Your task to perform on an android device: make emails show in primary in the gmail app Image 0: 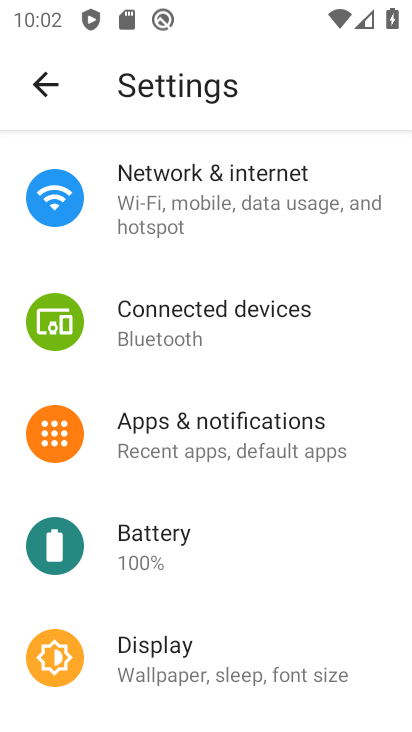
Step 0: press home button
Your task to perform on an android device: make emails show in primary in the gmail app Image 1: 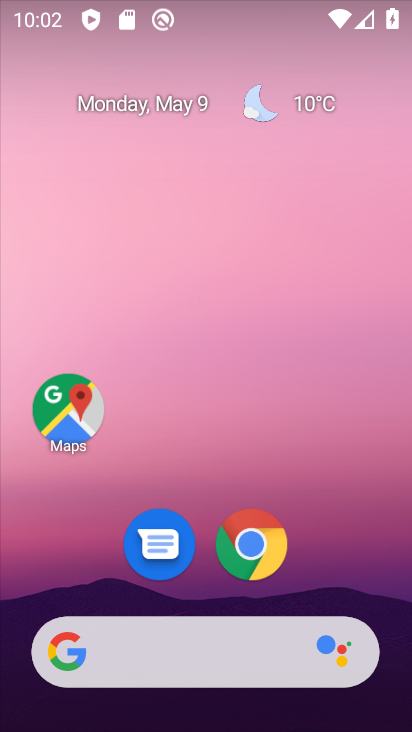
Step 1: drag from (397, 669) to (337, 205)
Your task to perform on an android device: make emails show in primary in the gmail app Image 2: 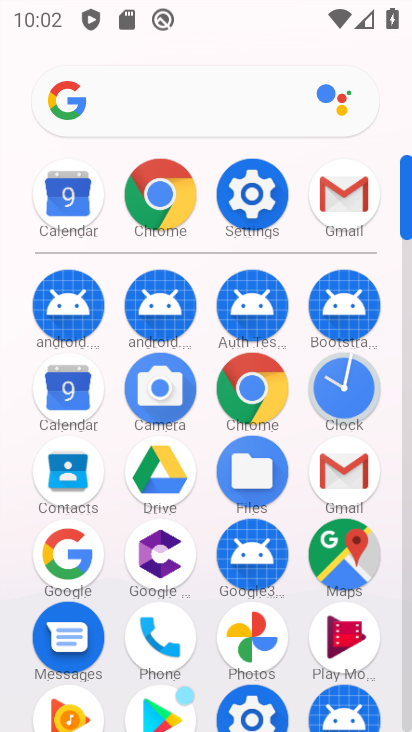
Step 2: click (348, 465)
Your task to perform on an android device: make emails show in primary in the gmail app Image 3: 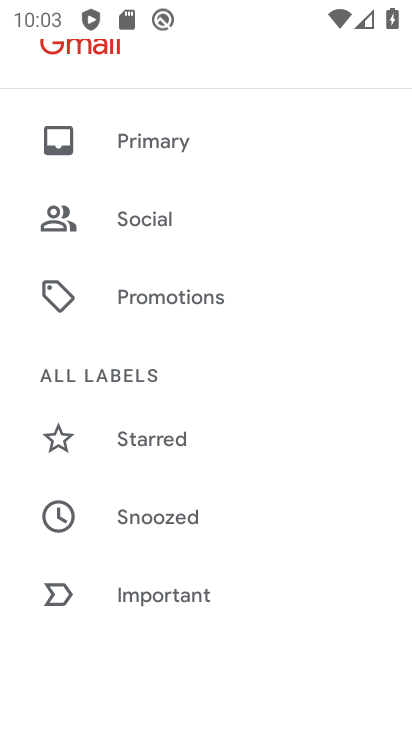
Step 3: drag from (305, 436) to (287, 227)
Your task to perform on an android device: make emails show in primary in the gmail app Image 4: 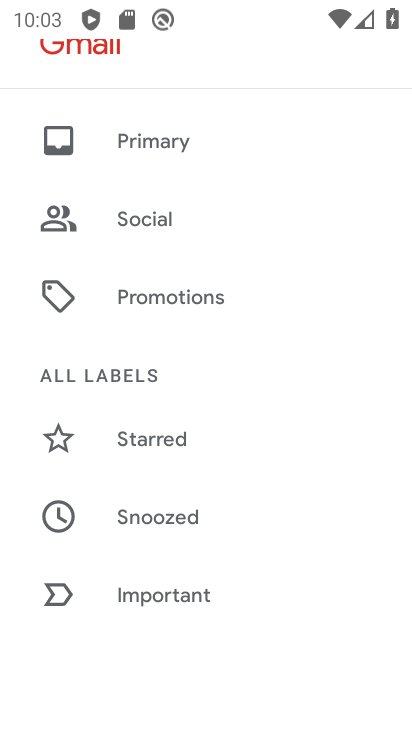
Step 4: drag from (313, 580) to (334, 229)
Your task to perform on an android device: make emails show in primary in the gmail app Image 5: 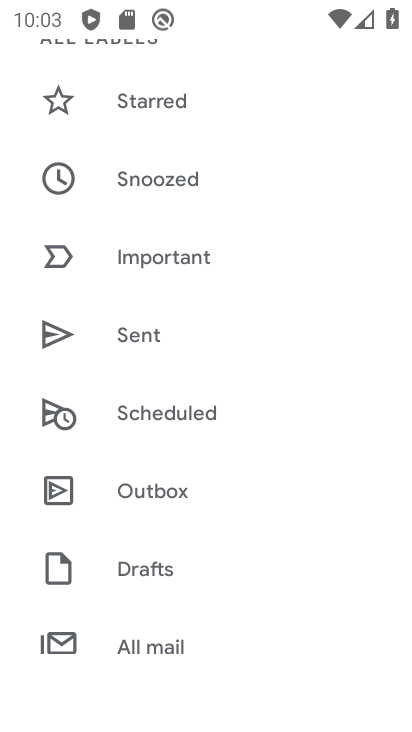
Step 5: drag from (341, 614) to (352, 335)
Your task to perform on an android device: make emails show in primary in the gmail app Image 6: 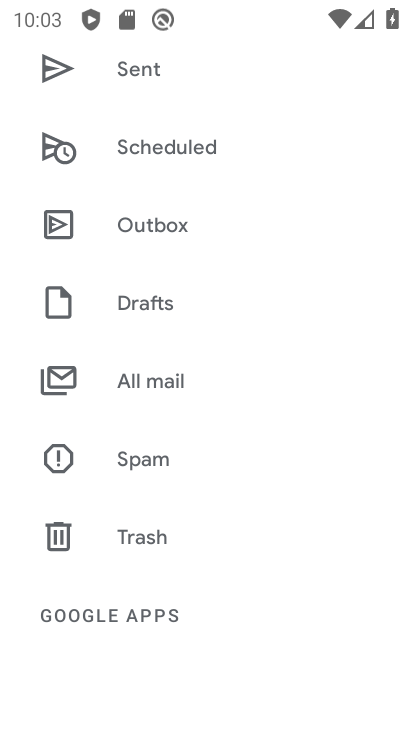
Step 6: drag from (310, 575) to (306, 302)
Your task to perform on an android device: make emails show in primary in the gmail app Image 7: 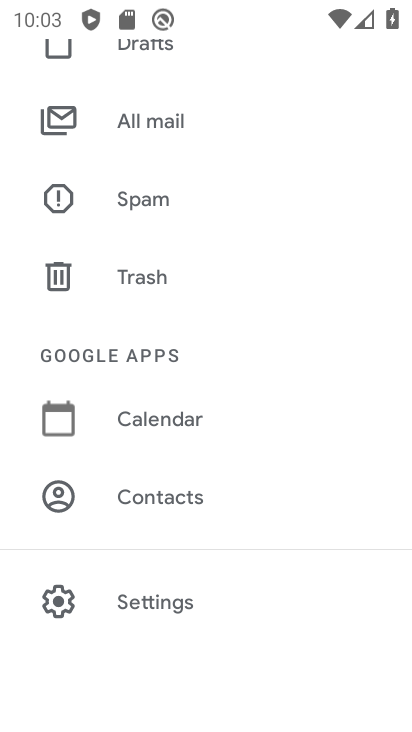
Step 7: click (164, 596)
Your task to perform on an android device: make emails show in primary in the gmail app Image 8: 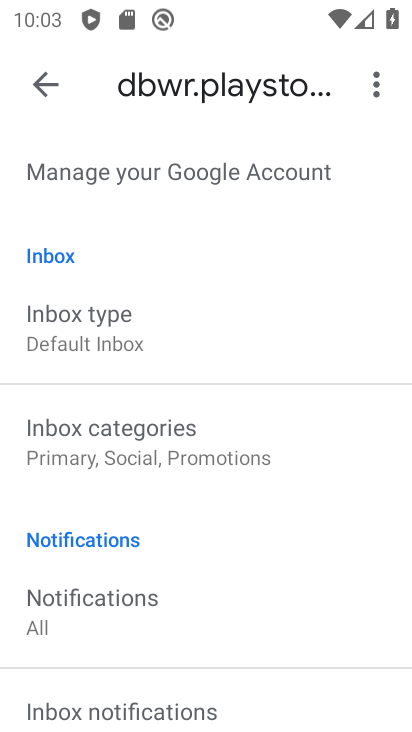
Step 8: click (98, 439)
Your task to perform on an android device: make emails show in primary in the gmail app Image 9: 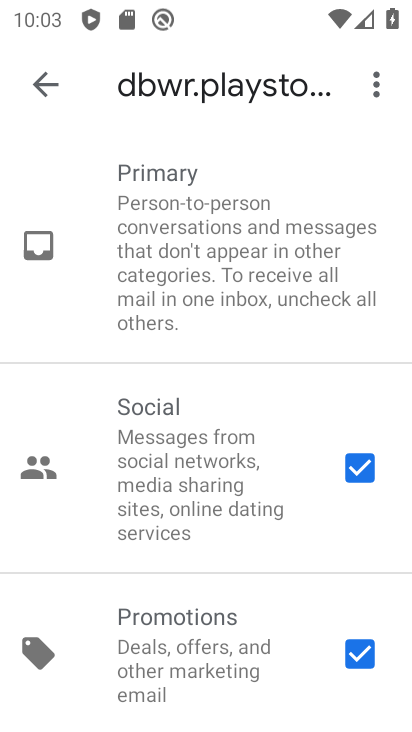
Step 9: click (350, 468)
Your task to perform on an android device: make emails show in primary in the gmail app Image 10: 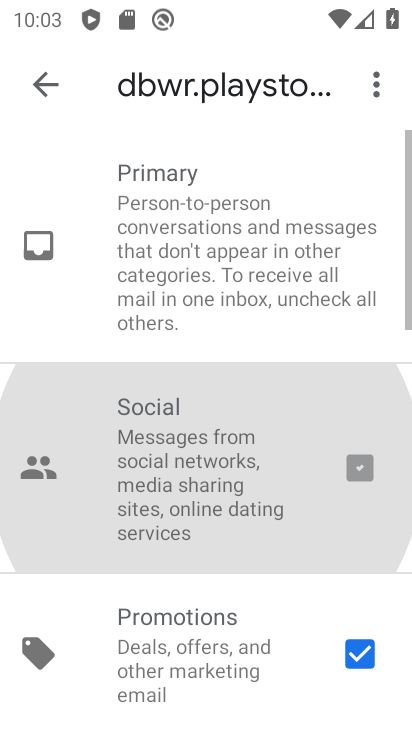
Step 10: click (354, 657)
Your task to perform on an android device: make emails show in primary in the gmail app Image 11: 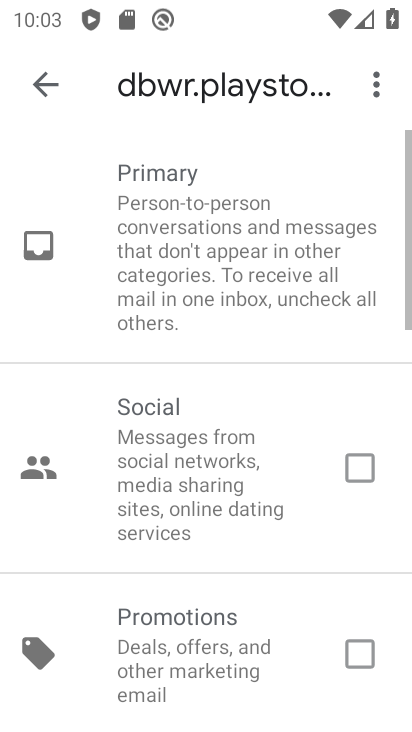
Step 11: drag from (289, 677) to (282, 276)
Your task to perform on an android device: make emails show in primary in the gmail app Image 12: 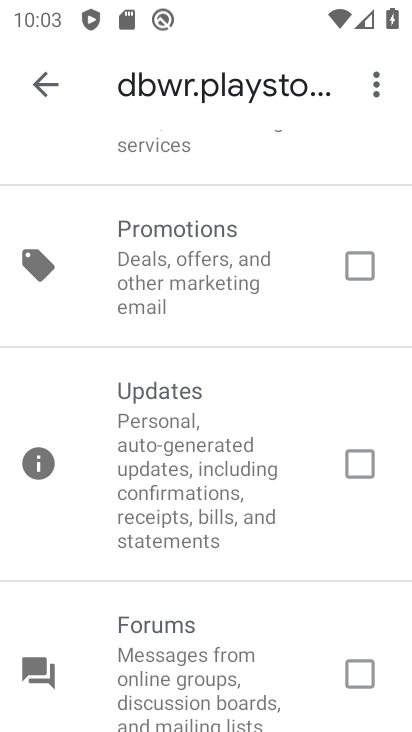
Step 12: click (50, 85)
Your task to perform on an android device: make emails show in primary in the gmail app Image 13: 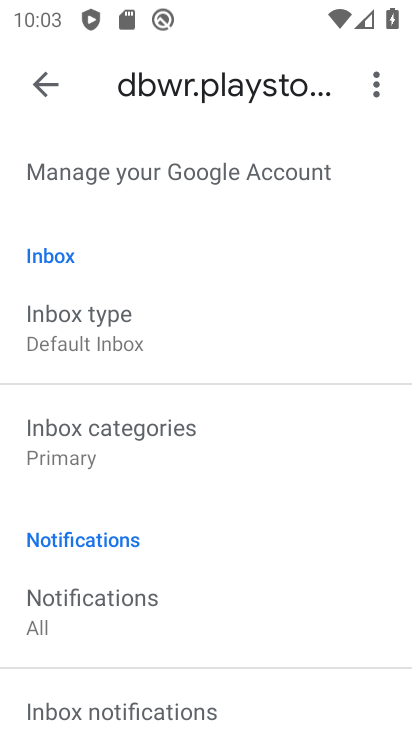
Step 13: task complete